Your task to perform on an android device: Empty the shopping cart on costco. Add duracell triple a to the cart on costco Image 0: 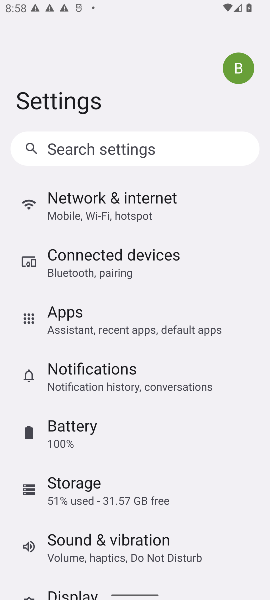
Step 0: press home button
Your task to perform on an android device: Empty the shopping cart on costco. Add duracell triple a to the cart on costco Image 1: 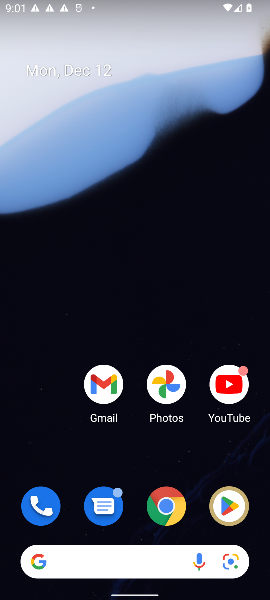
Step 1: task complete